Your task to perform on an android device: Go to Yahoo.com Image 0: 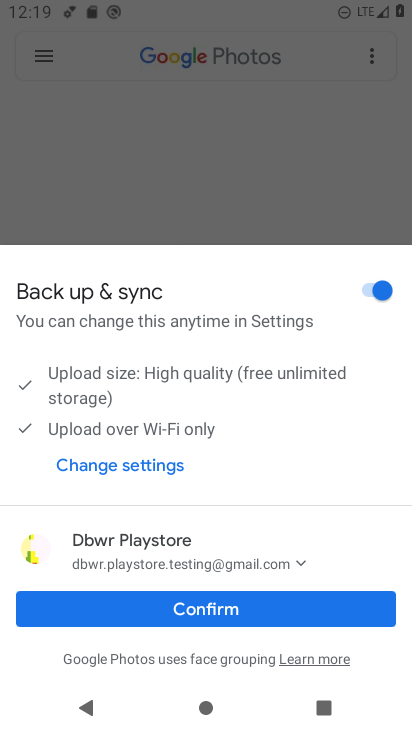
Step 0: press home button
Your task to perform on an android device: Go to Yahoo.com Image 1: 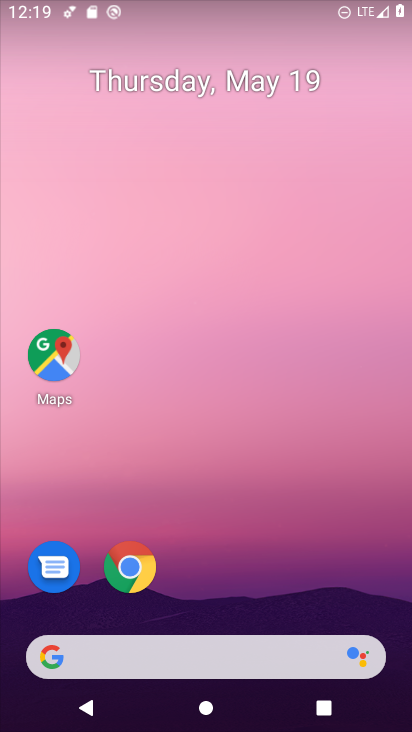
Step 1: click (278, 659)
Your task to perform on an android device: Go to Yahoo.com Image 2: 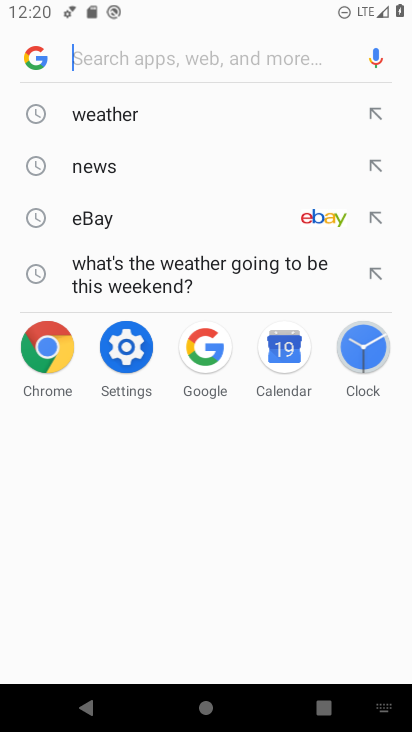
Step 2: type "yahoo.com"
Your task to perform on an android device: Go to Yahoo.com Image 3: 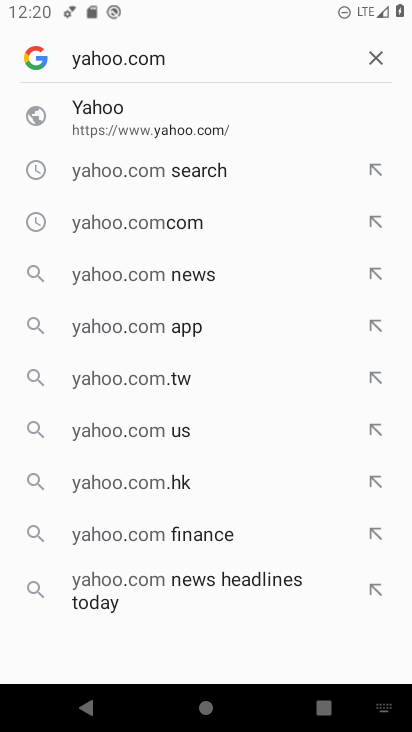
Step 3: click (91, 93)
Your task to perform on an android device: Go to Yahoo.com Image 4: 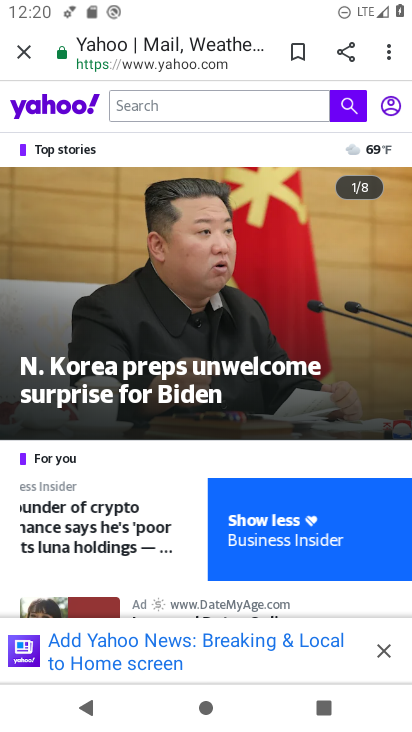
Step 4: task complete